Your task to perform on an android device: Go to display settings Image 0: 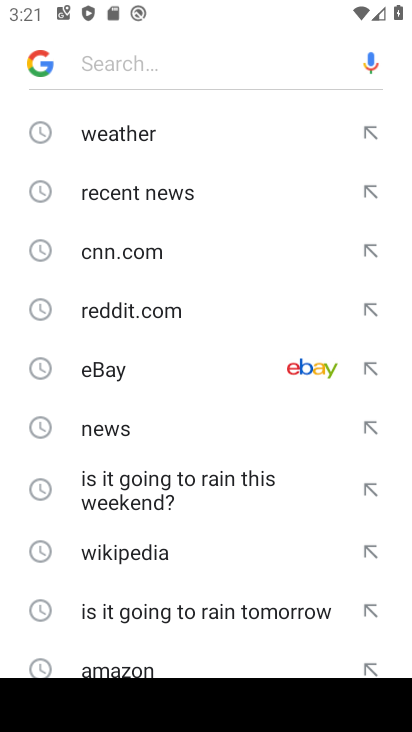
Step 0: press home button
Your task to perform on an android device: Go to display settings Image 1: 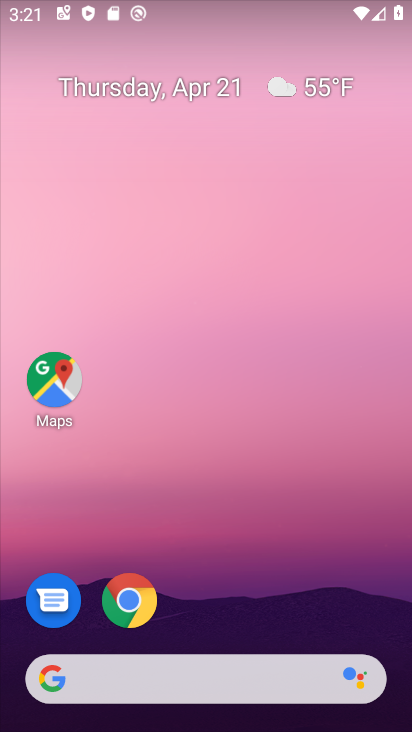
Step 1: drag from (234, 501) to (342, 141)
Your task to perform on an android device: Go to display settings Image 2: 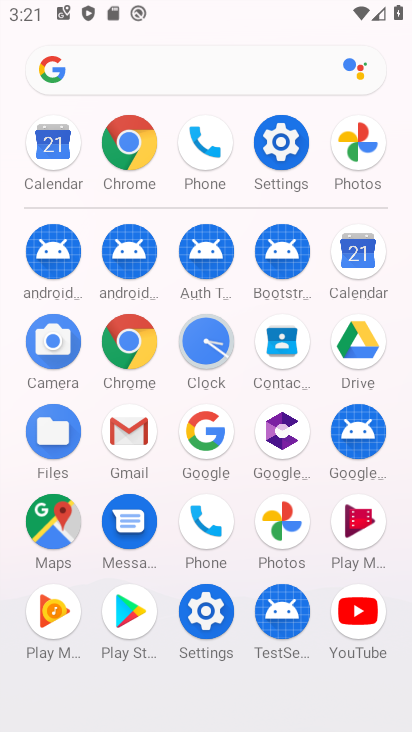
Step 2: click (285, 153)
Your task to perform on an android device: Go to display settings Image 3: 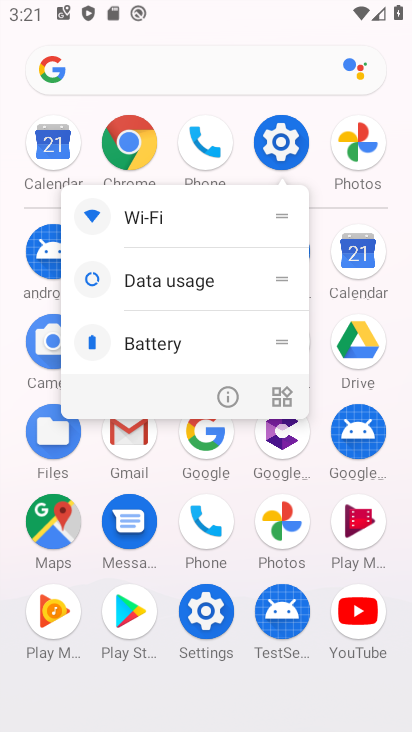
Step 3: click (285, 152)
Your task to perform on an android device: Go to display settings Image 4: 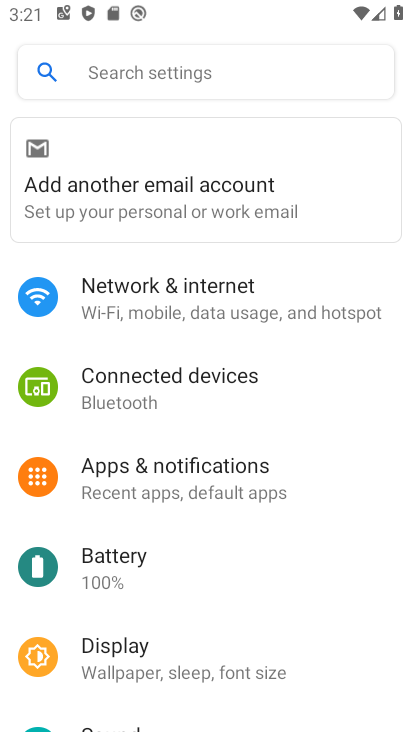
Step 4: click (117, 665)
Your task to perform on an android device: Go to display settings Image 5: 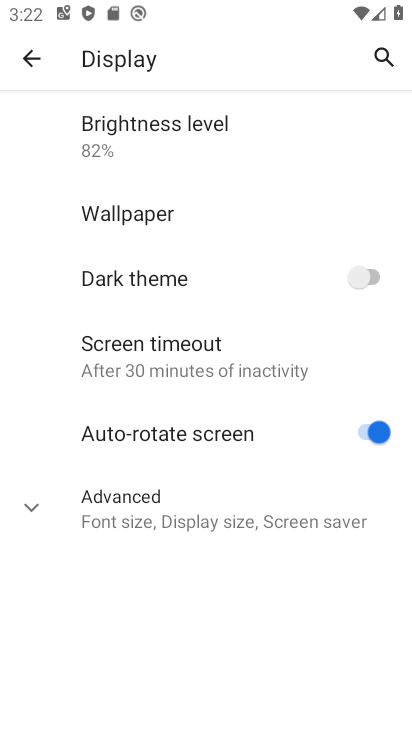
Step 5: task complete